Your task to perform on an android device: Go to Wikipedia Image 0: 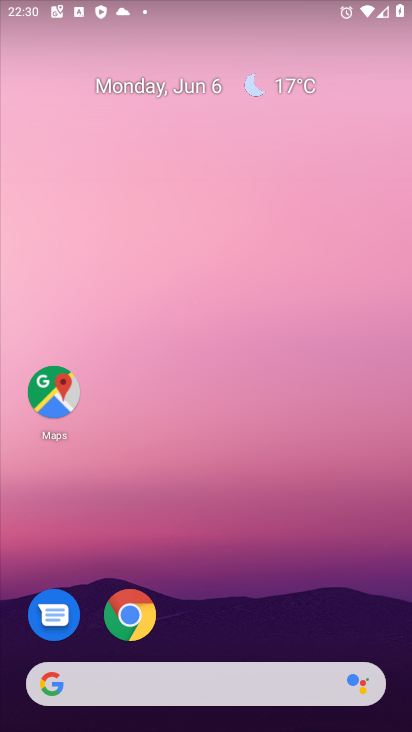
Step 0: click (117, 611)
Your task to perform on an android device: Go to Wikipedia Image 1: 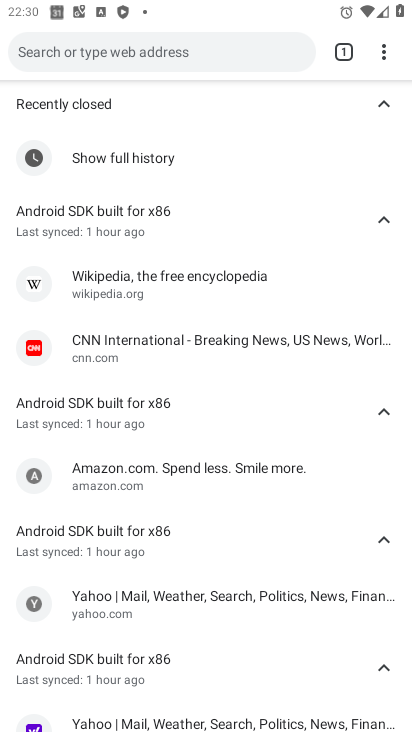
Step 1: click (178, 42)
Your task to perform on an android device: Go to Wikipedia Image 2: 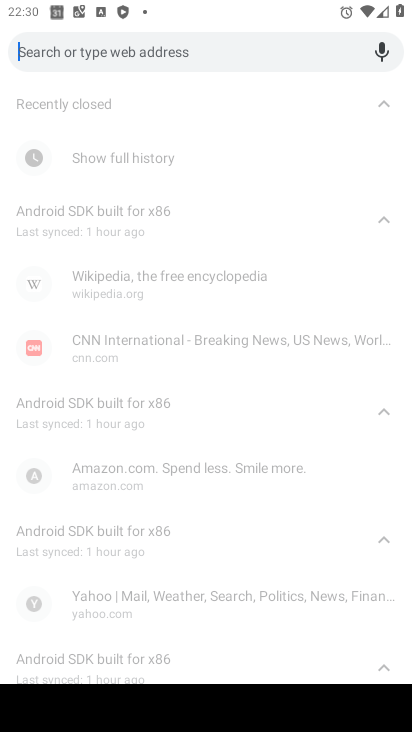
Step 2: type "Wikipedia"
Your task to perform on an android device: Go to Wikipedia Image 3: 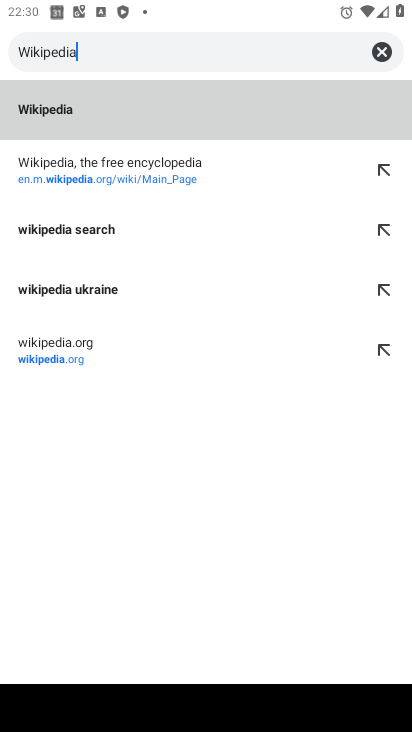
Step 3: click (38, 221)
Your task to perform on an android device: Go to Wikipedia Image 4: 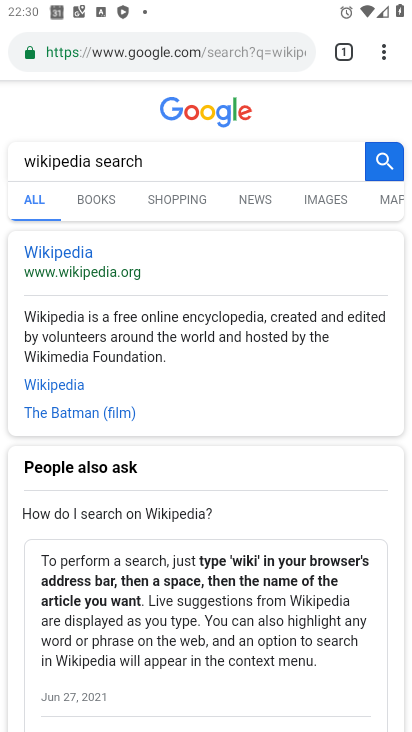
Step 4: task complete